Your task to perform on an android device: Open the web browser Image 0: 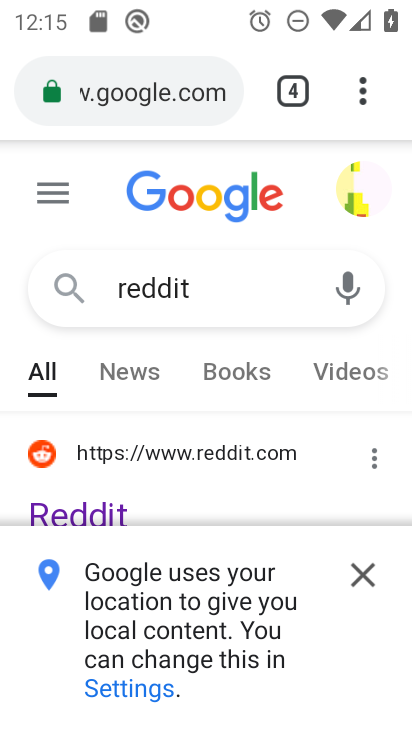
Step 0: click (281, 85)
Your task to perform on an android device: Open the web browser Image 1: 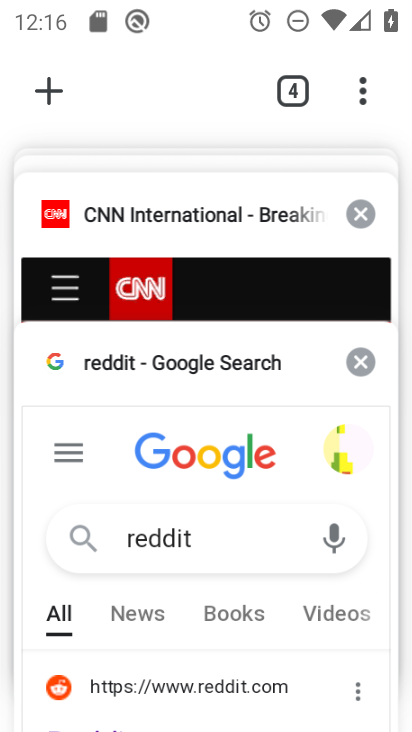
Step 1: task complete